Your task to perform on an android device: turn off notifications settings in the gmail app Image 0: 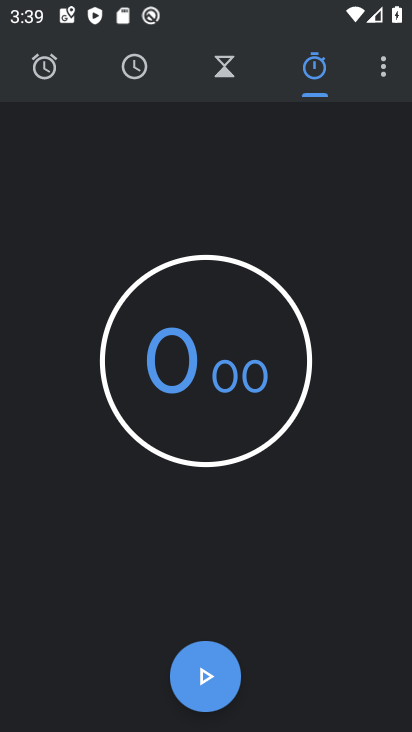
Step 0: press home button
Your task to perform on an android device: turn off notifications settings in the gmail app Image 1: 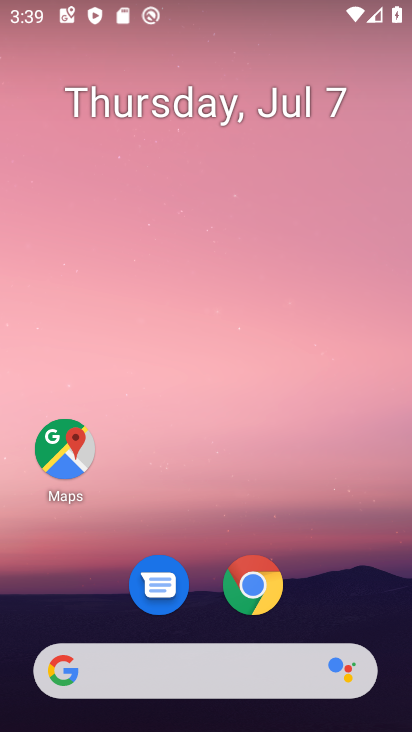
Step 1: drag from (290, 615) to (272, 24)
Your task to perform on an android device: turn off notifications settings in the gmail app Image 2: 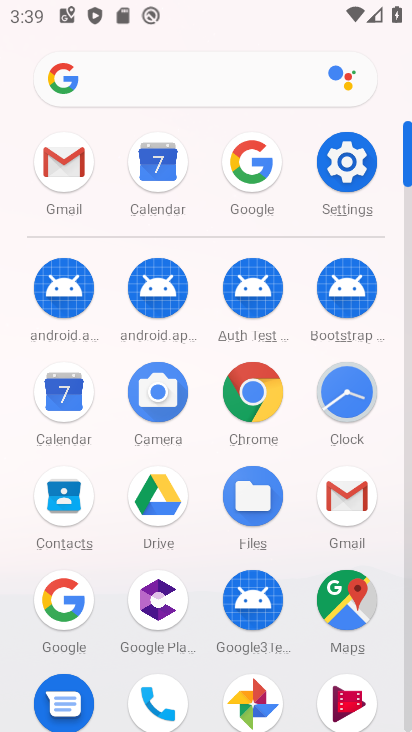
Step 2: click (66, 167)
Your task to perform on an android device: turn off notifications settings in the gmail app Image 3: 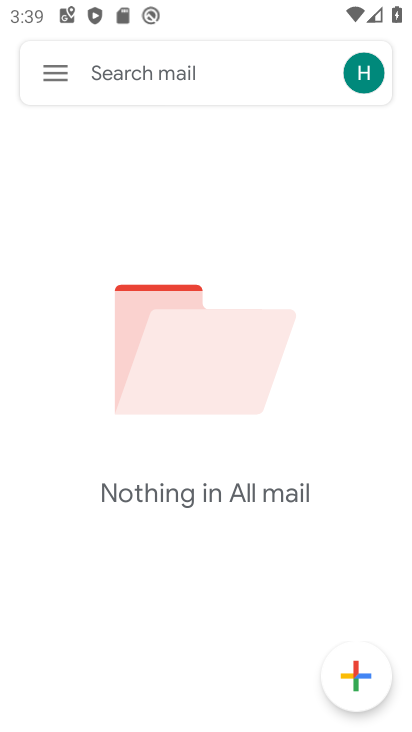
Step 3: click (57, 74)
Your task to perform on an android device: turn off notifications settings in the gmail app Image 4: 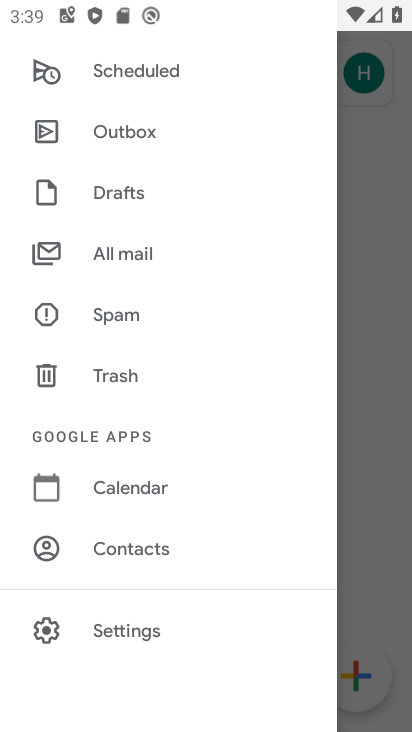
Step 4: click (130, 627)
Your task to perform on an android device: turn off notifications settings in the gmail app Image 5: 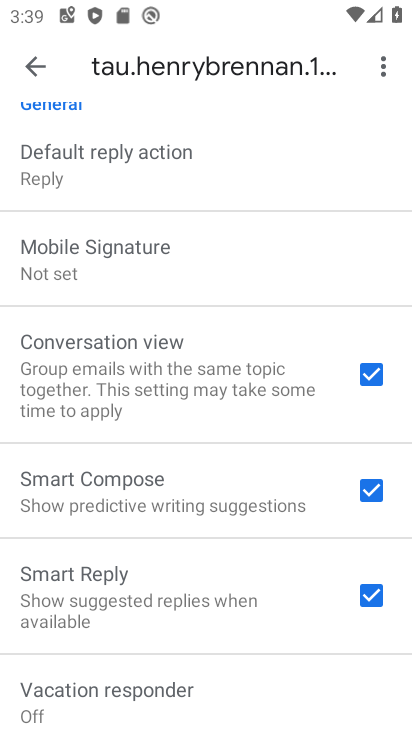
Step 5: drag from (166, 661) to (177, 431)
Your task to perform on an android device: turn off notifications settings in the gmail app Image 6: 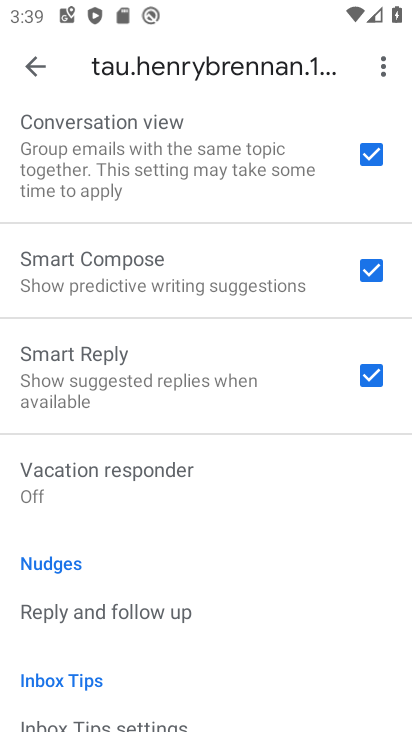
Step 6: drag from (180, 213) to (160, 683)
Your task to perform on an android device: turn off notifications settings in the gmail app Image 7: 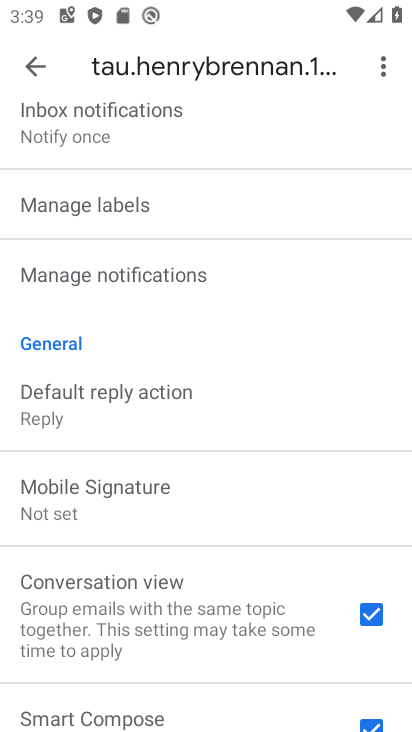
Step 7: drag from (191, 337) to (179, 608)
Your task to perform on an android device: turn off notifications settings in the gmail app Image 8: 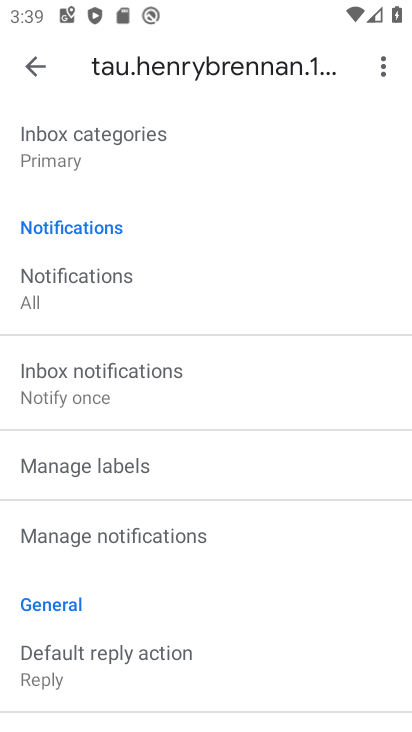
Step 8: click (193, 535)
Your task to perform on an android device: turn off notifications settings in the gmail app Image 9: 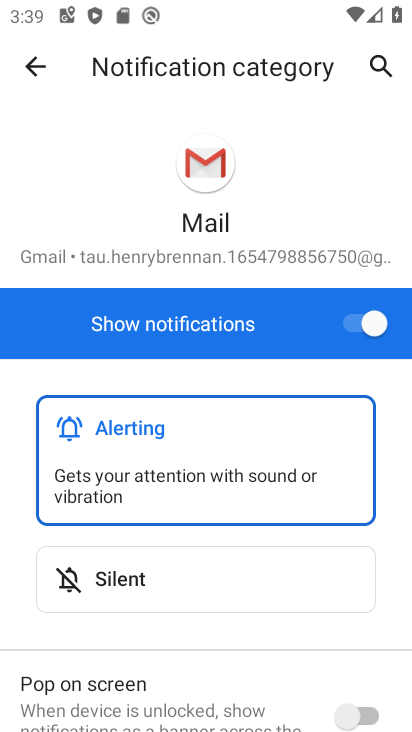
Step 9: click (369, 329)
Your task to perform on an android device: turn off notifications settings in the gmail app Image 10: 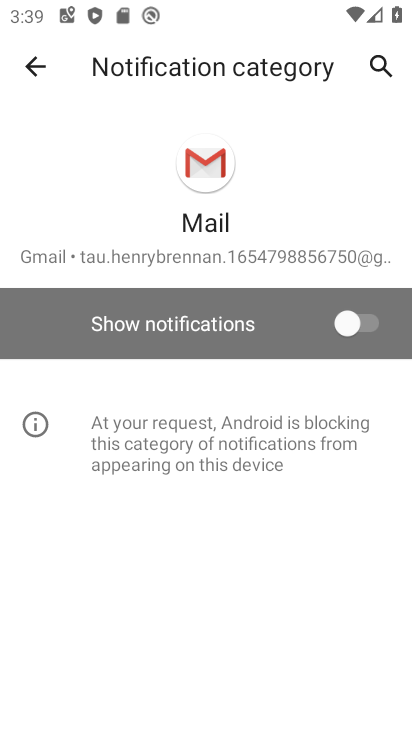
Step 10: task complete